Your task to perform on an android device: turn on wifi Image 0: 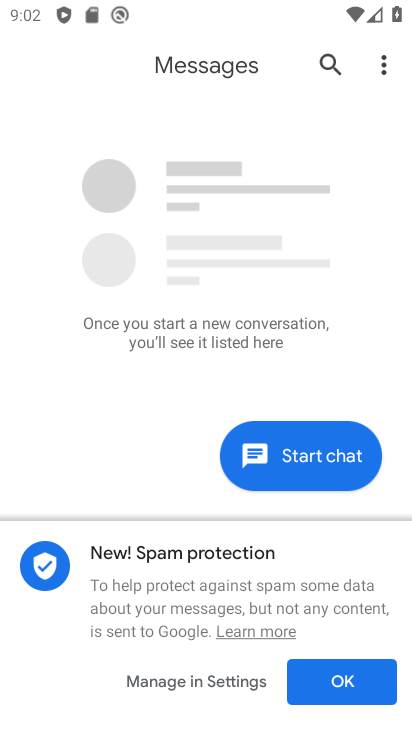
Step 0: press home button
Your task to perform on an android device: turn on wifi Image 1: 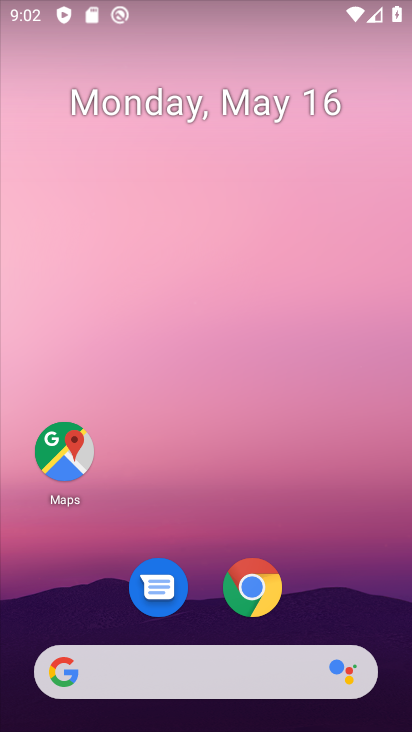
Step 1: drag from (92, 632) to (200, 134)
Your task to perform on an android device: turn on wifi Image 2: 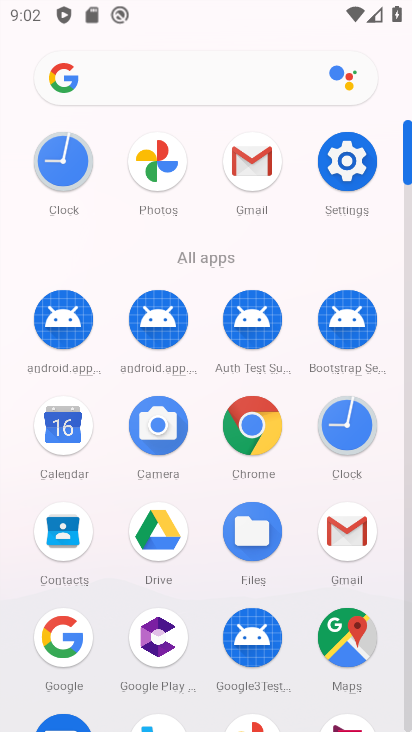
Step 2: click (354, 159)
Your task to perform on an android device: turn on wifi Image 3: 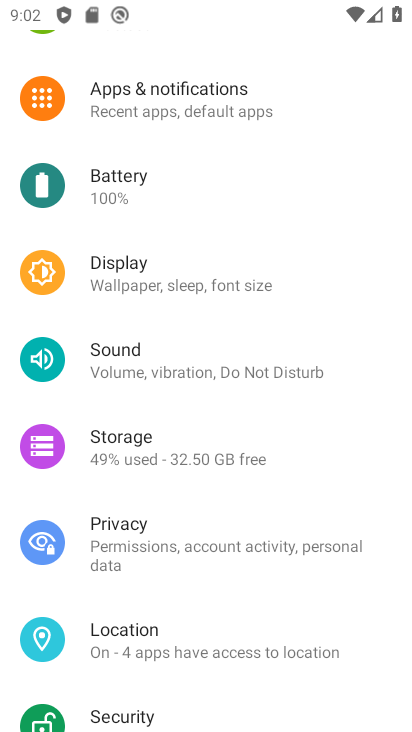
Step 3: drag from (215, 149) to (198, 463)
Your task to perform on an android device: turn on wifi Image 4: 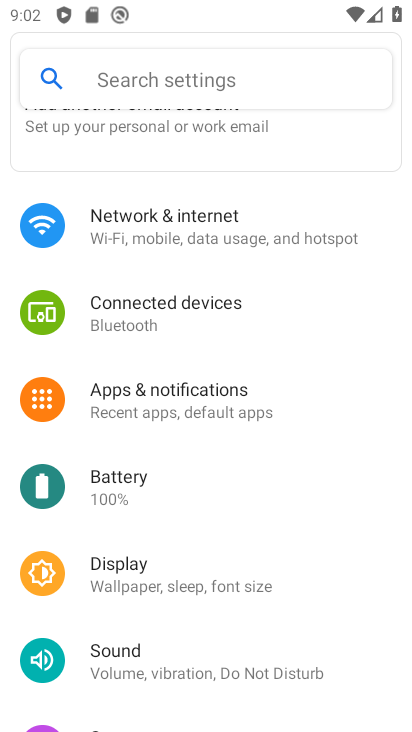
Step 4: click (186, 248)
Your task to perform on an android device: turn on wifi Image 5: 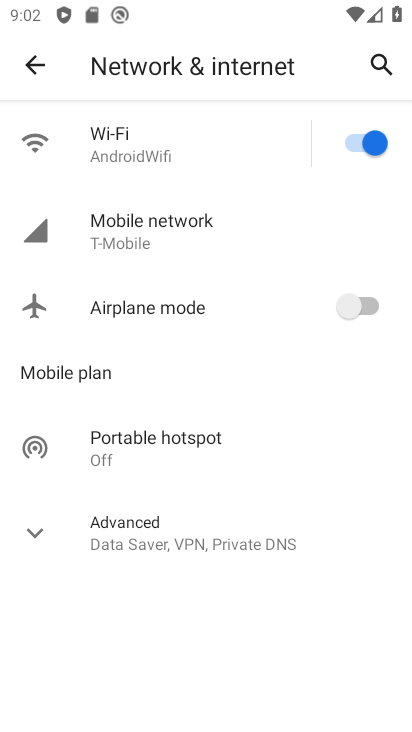
Step 5: task complete